Your task to perform on an android device: toggle wifi Image 0: 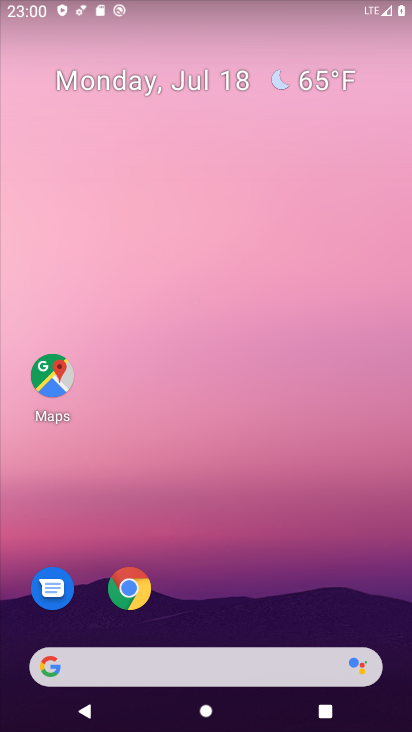
Step 0: press home button
Your task to perform on an android device: toggle wifi Image 1: 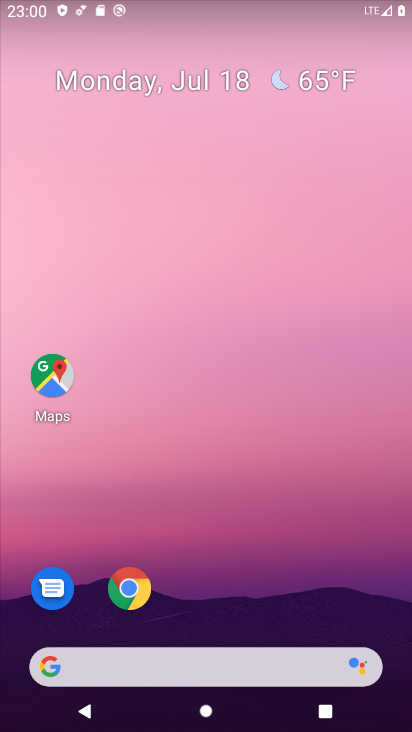
Step 1: drag from (268, 562) to (264, 155)
Your task to perform on an android device: toggle wifi Image 2: 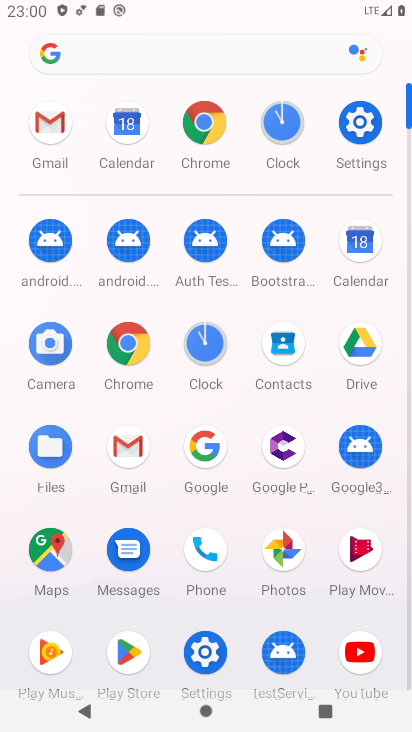
Step 2: click (375, 120)
Your task to perform on an android device: toggle wifi Image 3: 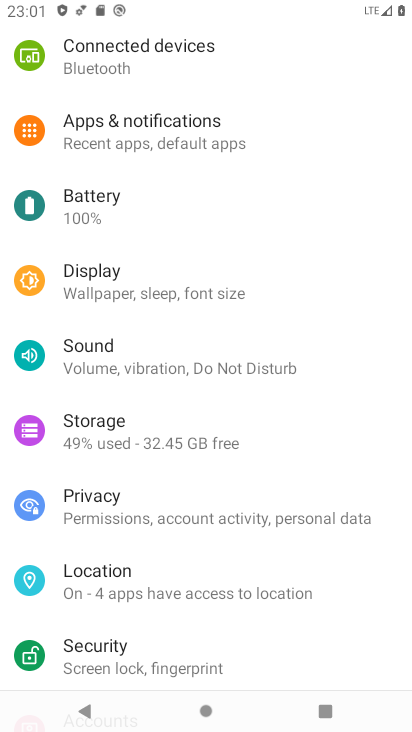
Step 3: drag from (225, 62) to (222, 386)
Your task to perform on an android device: toggle wifi Image 4: 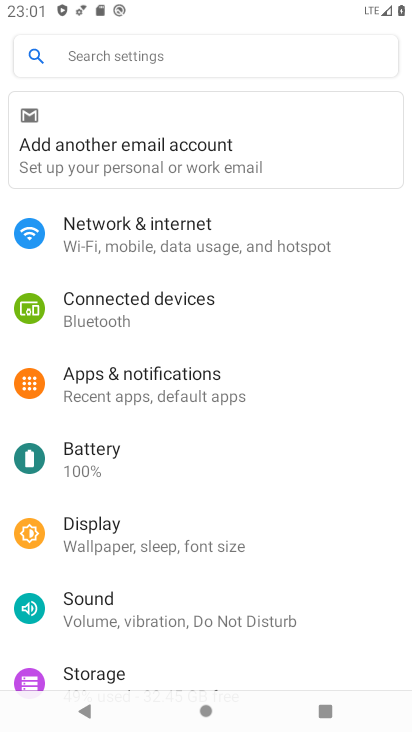
Step 4: click (207, 218)
Your task to perform on an android device: toggle wifi Image 5: 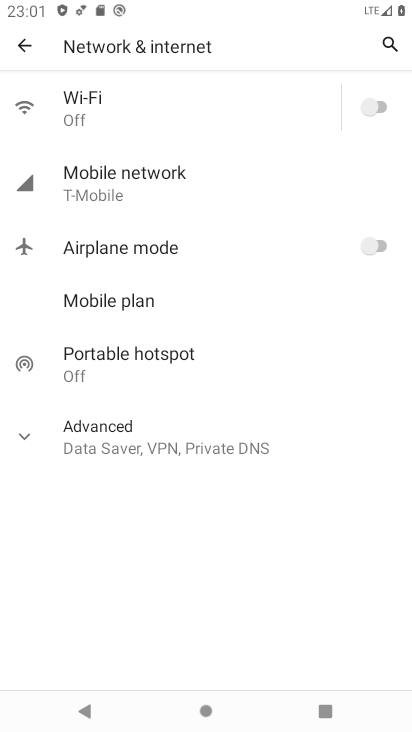
Step 5: click (381, 110)
Your task to perform on an android device: toggle wifi Image 6: 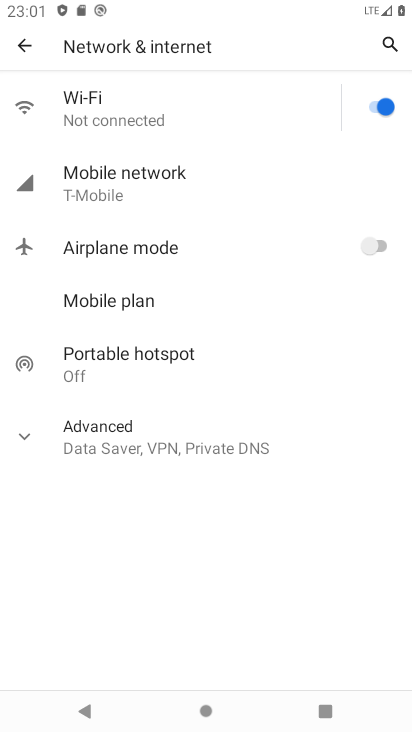
Step 6: task complete